Your task to perform on an android device: Open internet settings Image 0: 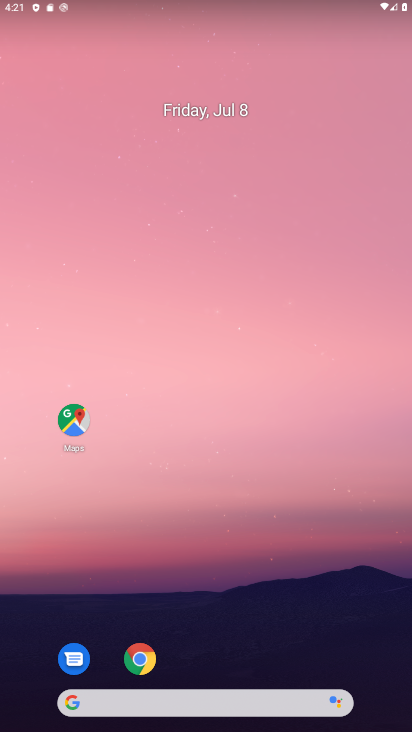
Step 0: drag from (240, 336) to (163, 0)
Your task to perform on an android device: Open internet settings Image 1: 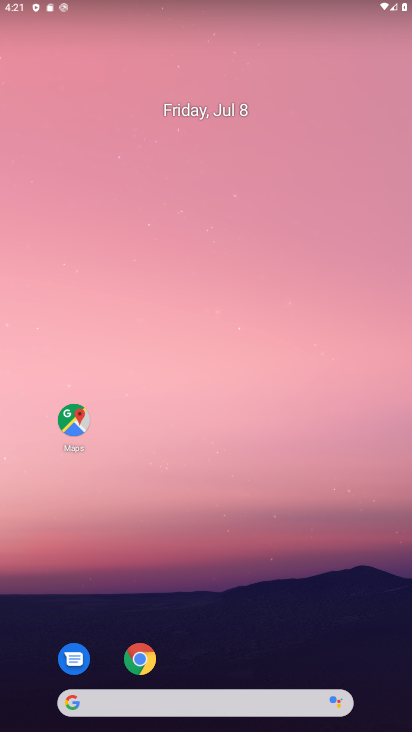
Step 1: drag from (261, 443) to (189, 46)
Your task to perform on an android device: Open internet settings Image 2: 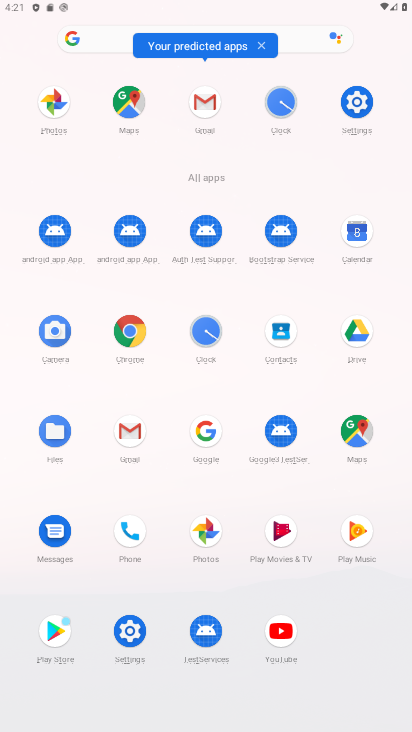
Step 2: click (366, 94)
Your task to perform on an android device: Open internet settings Image 3: 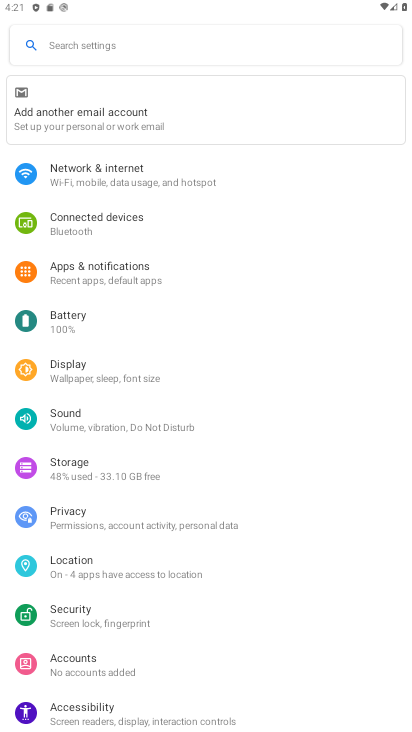
Step 3: click (152, 175)
Your task to perform on an android device: Open internet settings Image 4: 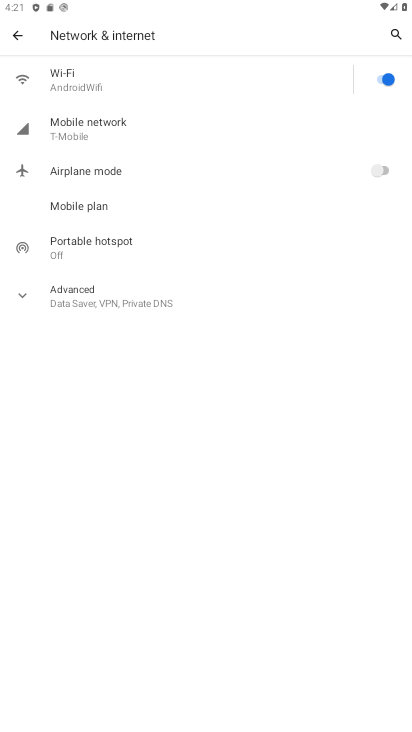
Step 4: click (118, 289)
Your task to perform on an android device: Open internet settings Image 5: 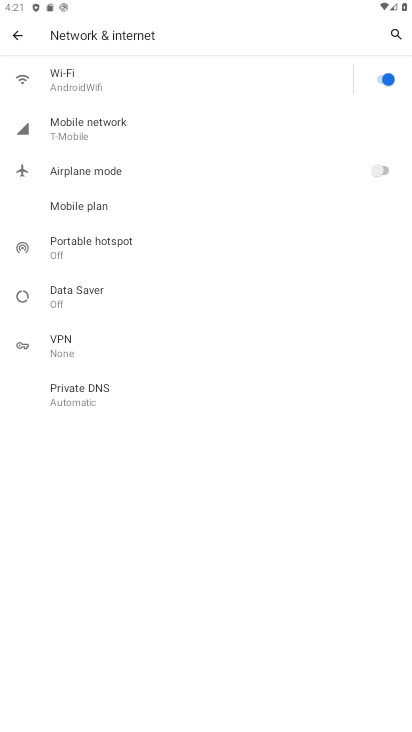
Step 5: task complete